Your task to perform on an android device: change text size in settings app Image 0: 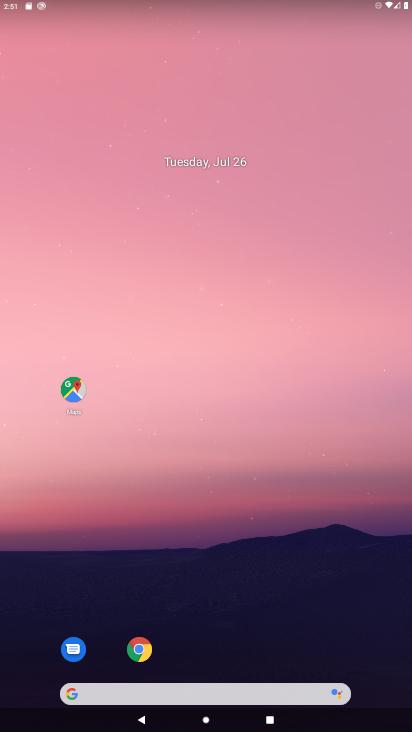
Step 0: click (298, 85)
Your task to perform on an android device: change text size in settings app Image 1: 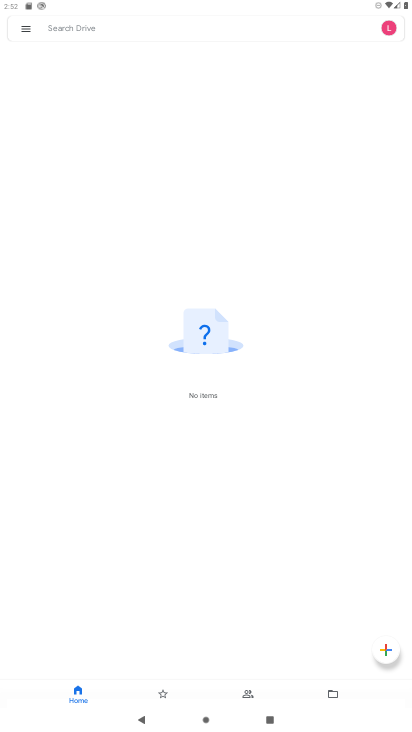
Step 1: press home button
Your task to perform on an android device: change text size in settings app Image 2: 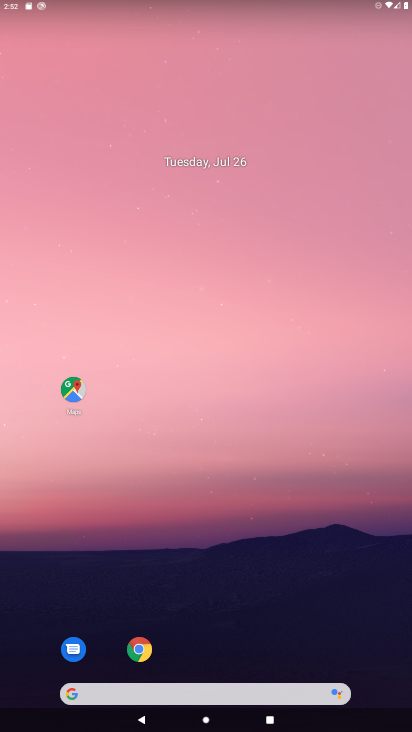
Step 2: drag from (197, 685) to (202, 259)
Your task to perform on an android device: change text size in settings app Image 3: 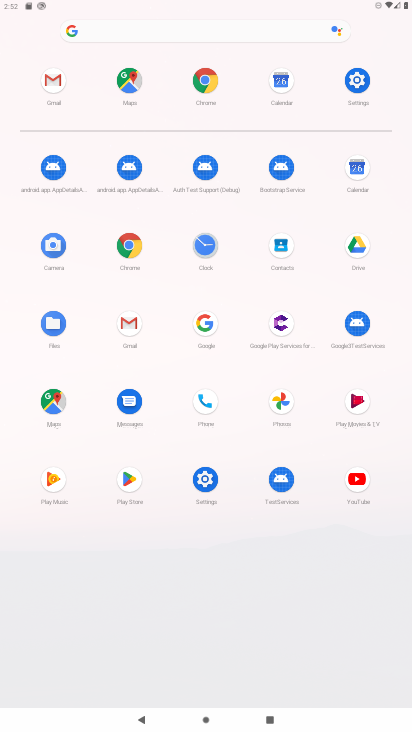
Step 3: click (200, 481)
Your task to perform on an android device: change text size in settings app Image 4: 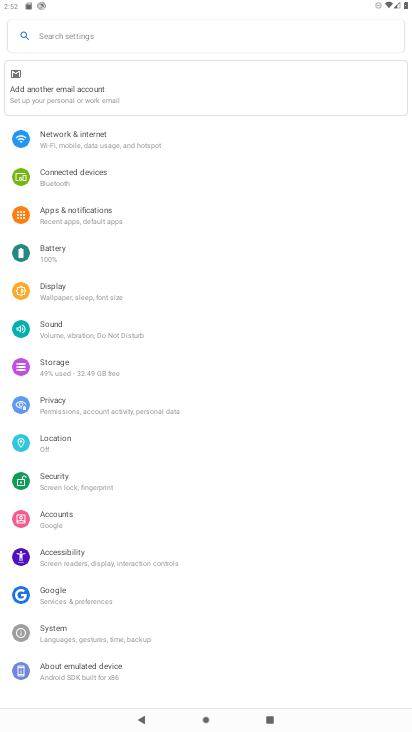
Step 4: click (63, 291)
Your task to perform on an android device: change text size in settings app Image 5: 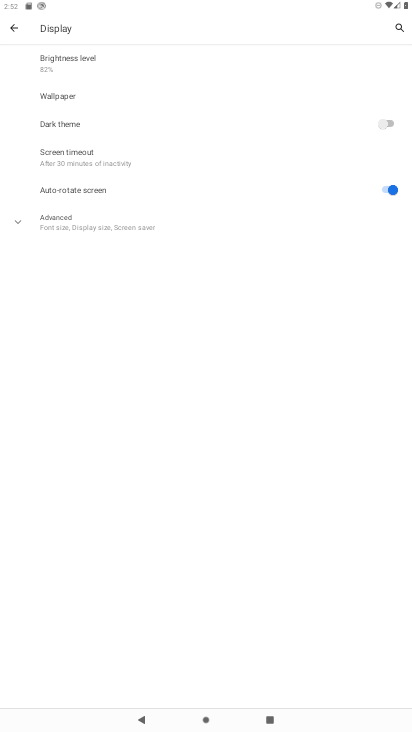
Step 5: click (95, 216)
Your task to perform on an android device: change text size in settings app Image 6: 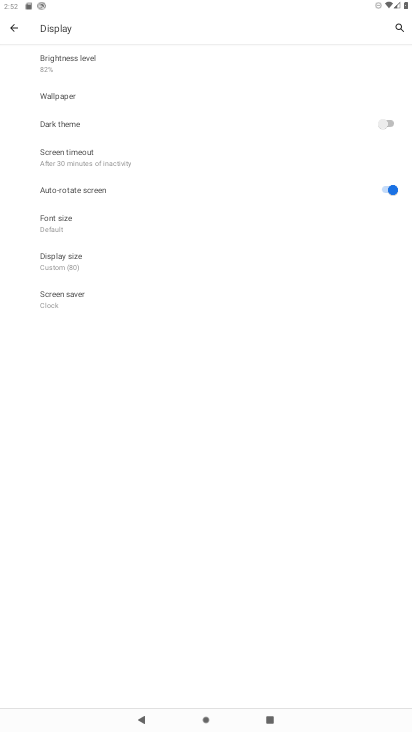
Step 6: click (63, 230)
Your task to perform on an android device: change text size in settings app Image 7: 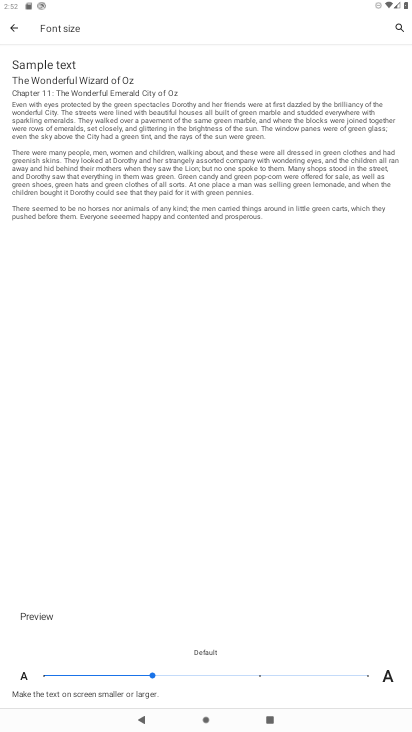
Step 7: task complete